Your task to perform on an android device: turn vacation reply on in the gmail app Image 0: 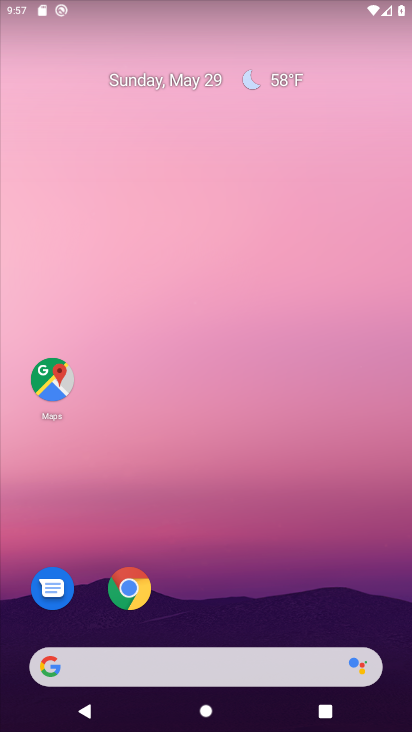
Step 0: drag from (253, 515) to (253, 215)
Your task to perform on an android device: turn vacation reply on in the gmail app Image 1: 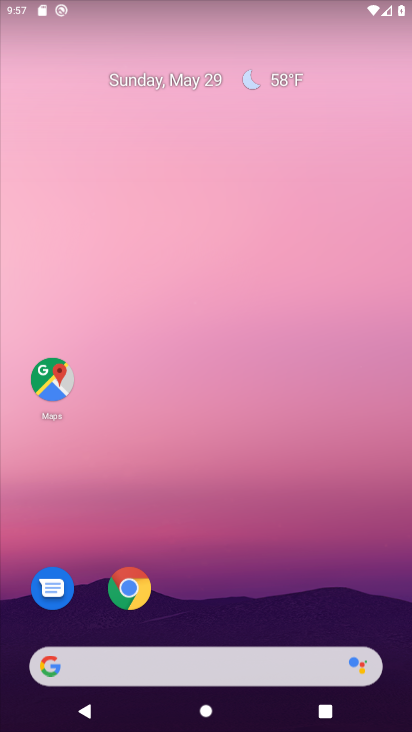
Step 1: click (222, 102)
Your task to perform on an android device: turn vacation reply on in the gmail app Image 2: 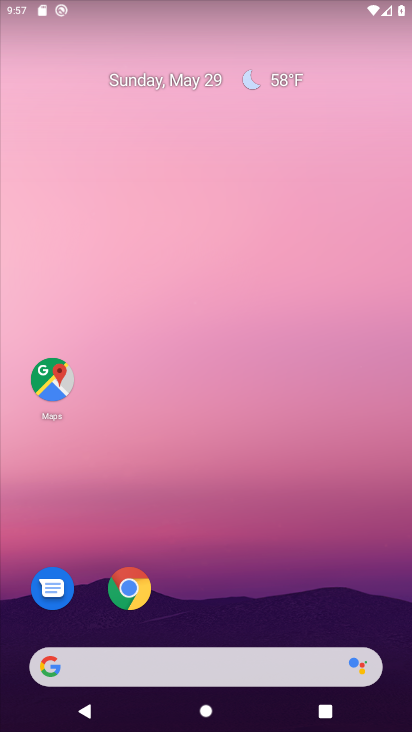
Step 2: drag from (217, 448) to (200, 206)
Your task to perform on an android device: turn vacation reply on in the gmail app Image 3: 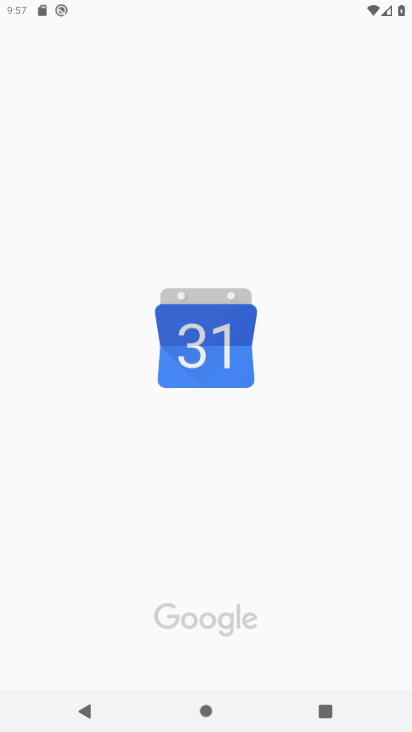
Step 3: drag from (208, 565) to (206, 246)
Your task to perform on an android device: turn vacation reply on in the gmail app Image 4: 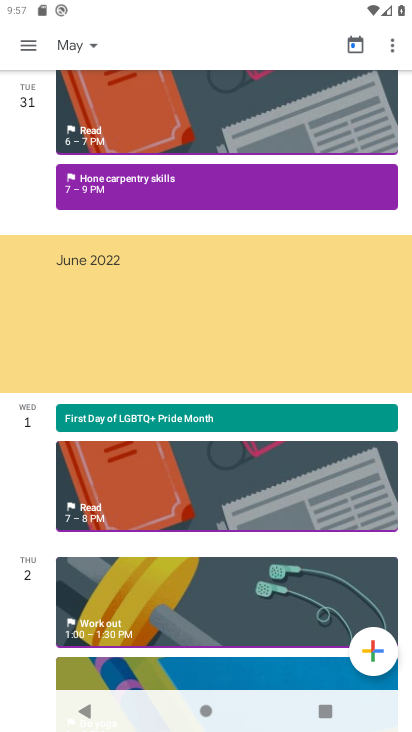
Step 4: press back button
Your task to perform on an android device: turn vacation reply on in the gmail app Image 5: 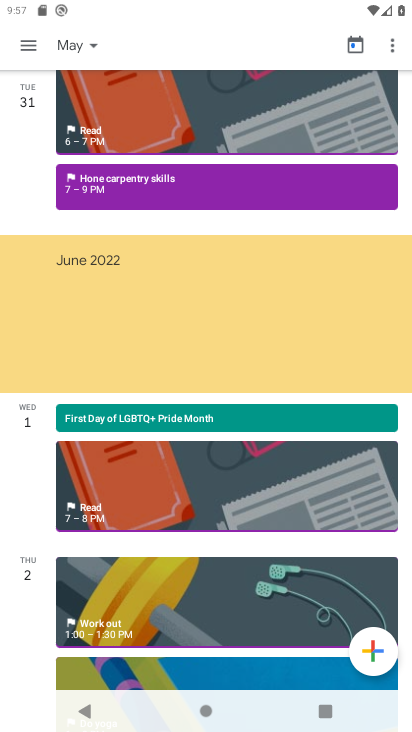
Step 5: press back button
Your task to perform on an android device: turn vacation reply on in the gmail app Image 6: 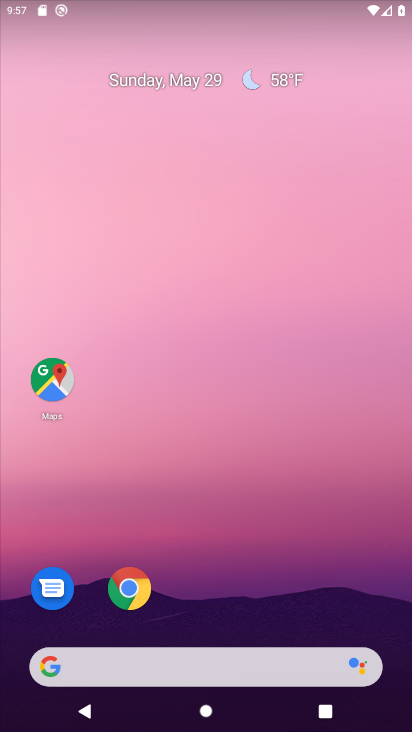
Step 6: drag from (246, 638) to (227, 178)
Your task to perform on an android device: turn vacation reply on in the gmail app Image 7: 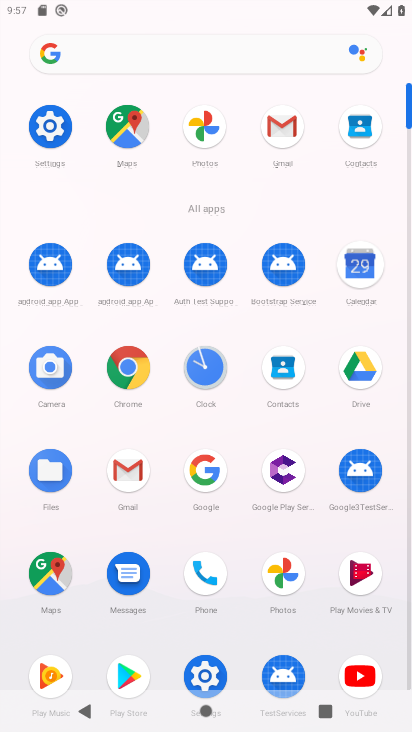
Step 7: click (131, 467)
Your task to perform on an android device: turn vacation reply on in the gmail app Image 8: 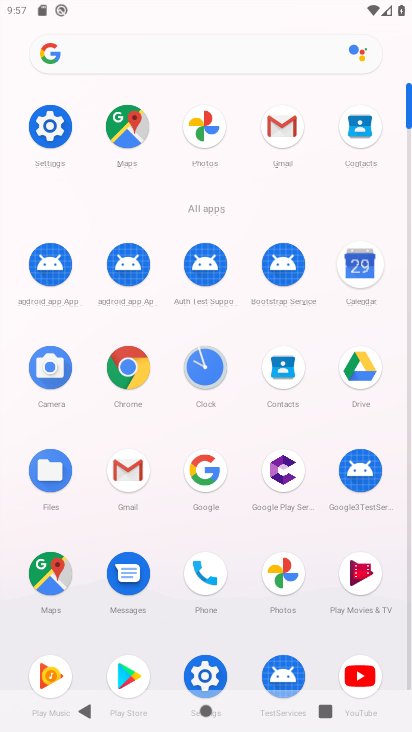
Step 8: click (131, 464)
Your task to perform on an android device: turn vacation reply on in the gmail app Image 9: 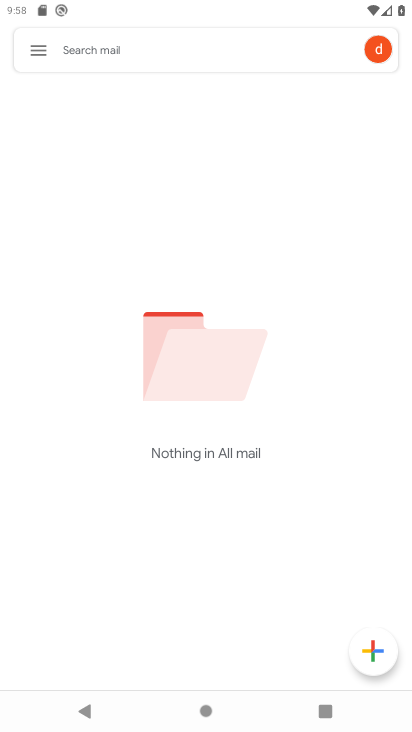
Step 9: click (33, 40)
Your task to perform on an android device: turn vacation reply on in the gmail app Image 10: 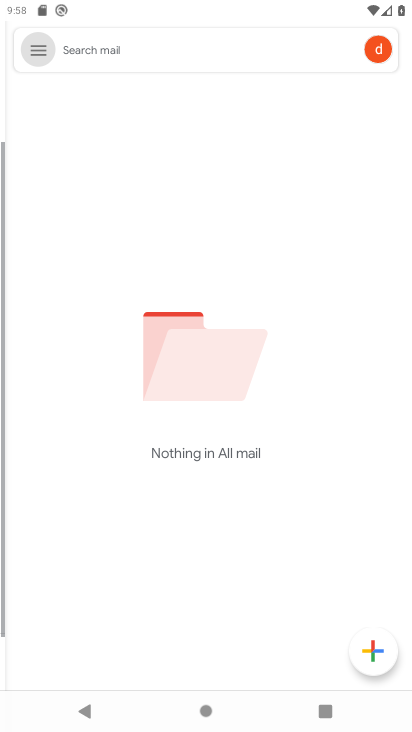
Step 10: click (42, 36)
Your task to perform on an android device: turn vacation reply on in the gmail app Image 11: 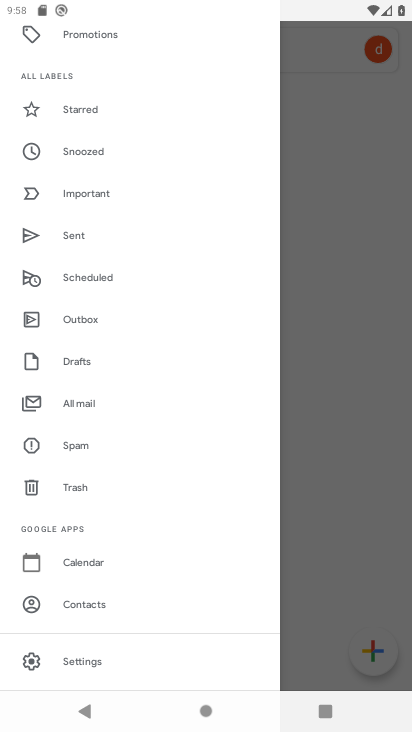
Step 11: click (80, 665)
Your task to perform on an android device: turn vacation reply on in the gmail app Image 12: 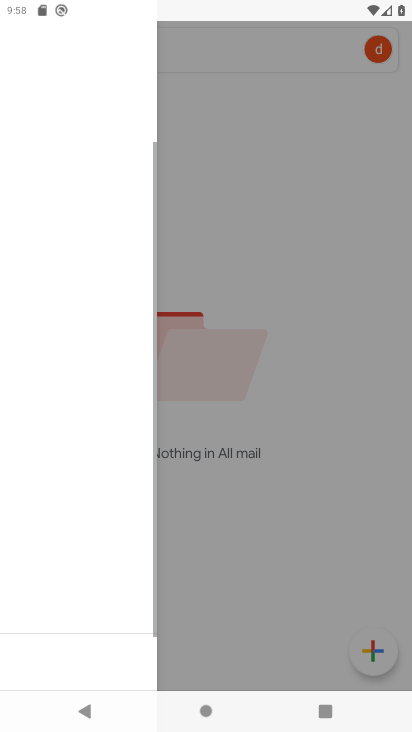
Step 12: click (89, 662)
Your task to perform on an android device: turn vacation reply on in the gmail app Image 13: 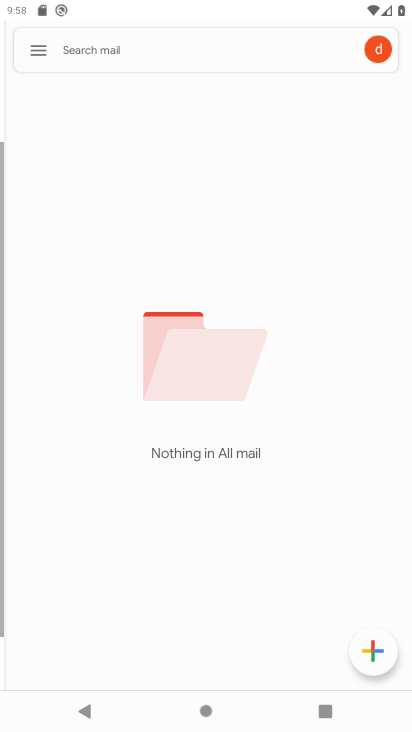
Step 13: click (90, 662)
Your task to perform on an android device: turn vacation reply on in the gmail app Image 14: 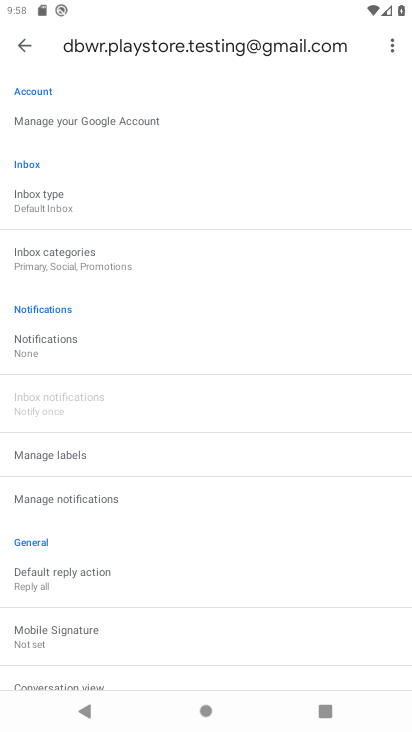
Step 14: drag from (80, 482) to (89, 212)
Your task to perform on an android device: turn vacation reply on in the gmail app Image 15: 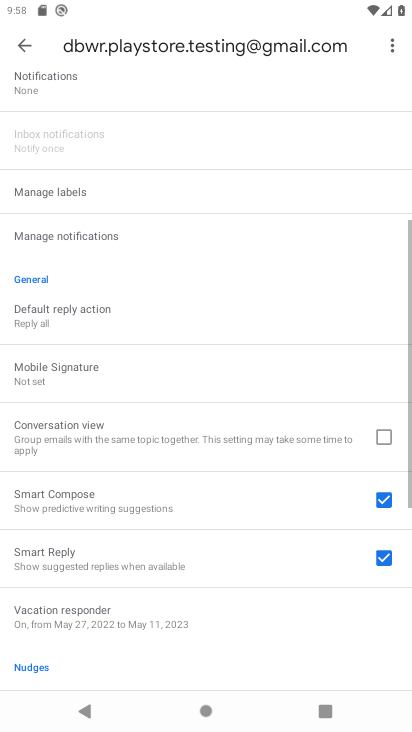
Step 15: drag from (93, 495) to (91, 203)
Your task to perform on an android device: turn vacation reply on in the gmail app Image 16: 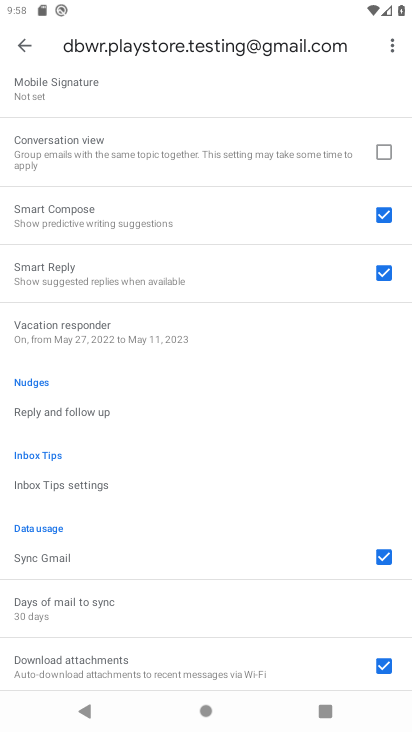
Step 16: click (88, 333)
Your task to perform on an android device: turn vacation reply on in the gmail app Image 17: 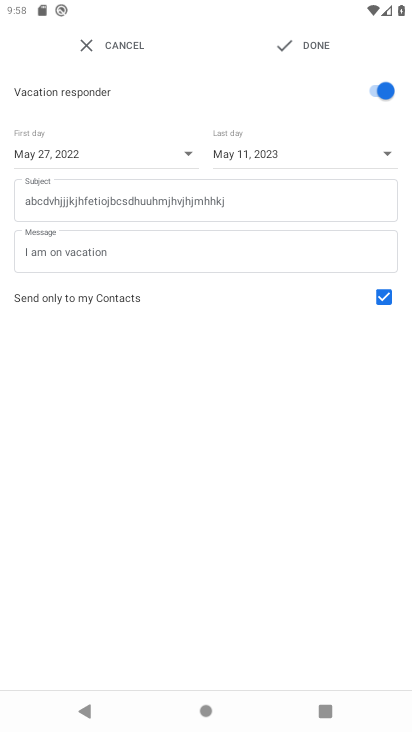
Step 17: task complete